Your task to perform on an android device: delete location history Image 0: 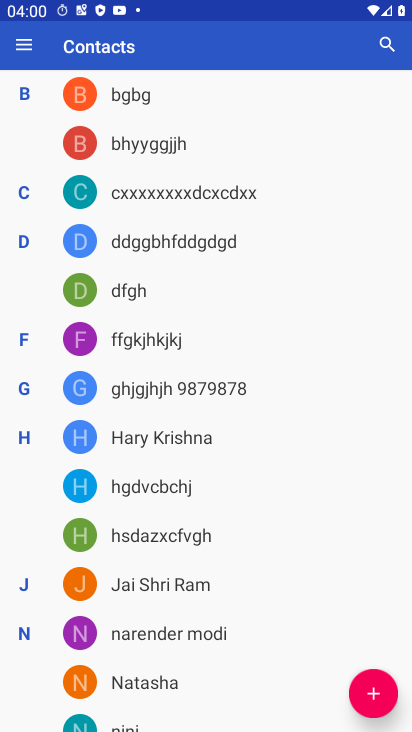
Step 0: press back button
Your task to perform on an android device: delete location history Image 1: 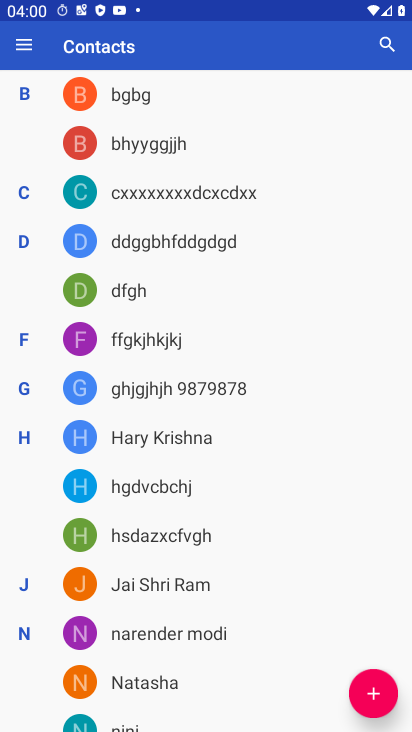
Step 1: press back button
Your task to perform on an android device: delete location history Image 2: 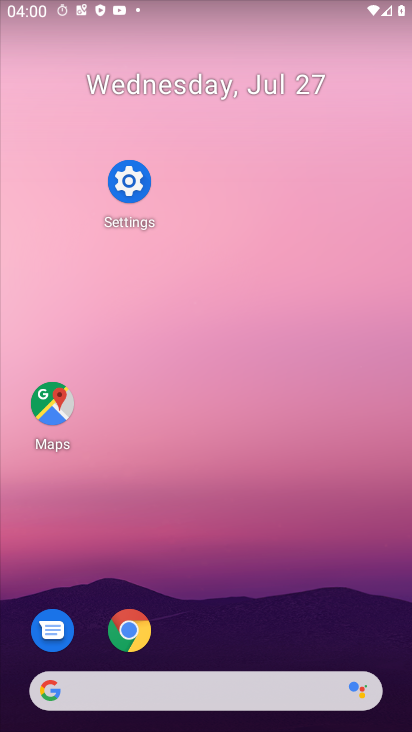
Step 2: drag from (253, 664) to (237, 316)
Your task to perform on an android device: delete location history Image 3: 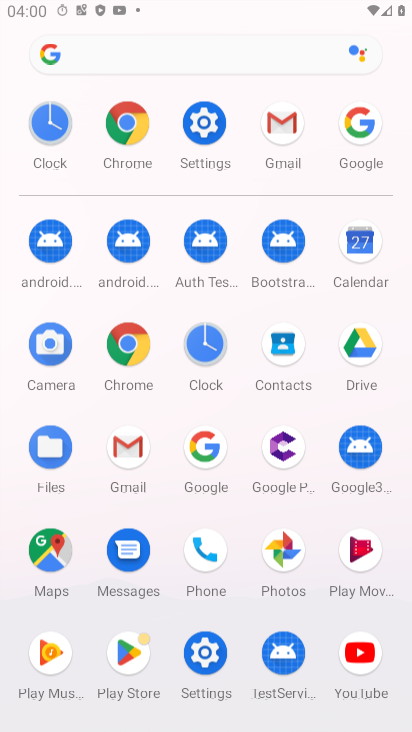
Step 3: drag from (217, 532) to (217, 395)
Your task to perform on an android device: delete location history Image 4: 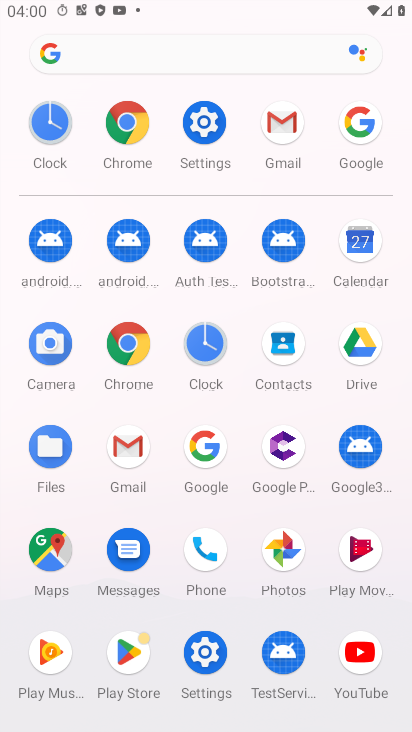
Step 4: click (191, 664)
Your task to perform on an android device: delete location history Image 5: 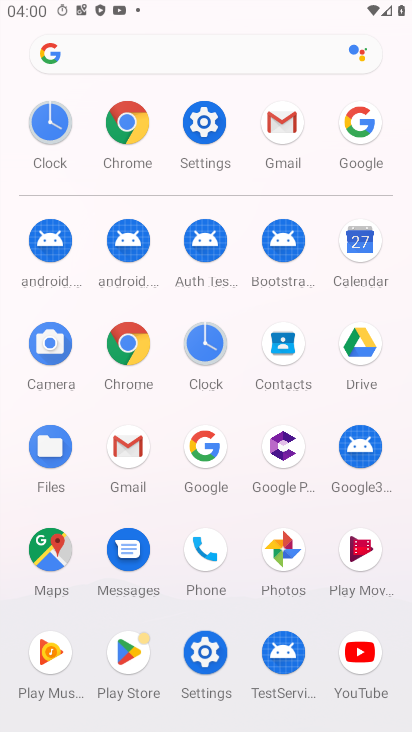
Step 5: click (191, 664)
Your task to perform on an android device: delete location history Image 6: 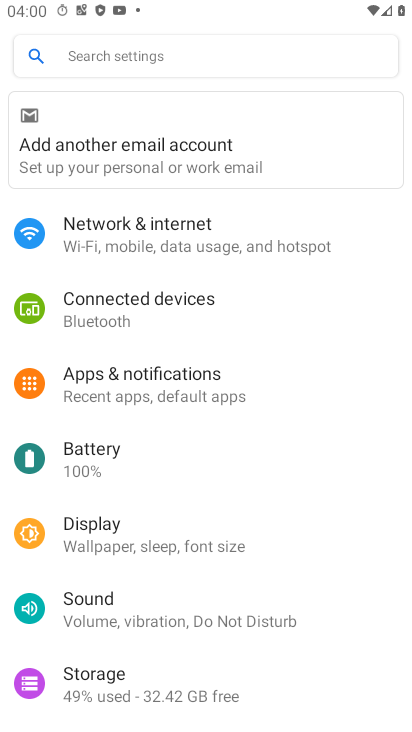
Step 6: drag from (129, 589) to (107, 236)
Your task to perform on an android device: delete location history Image 7: 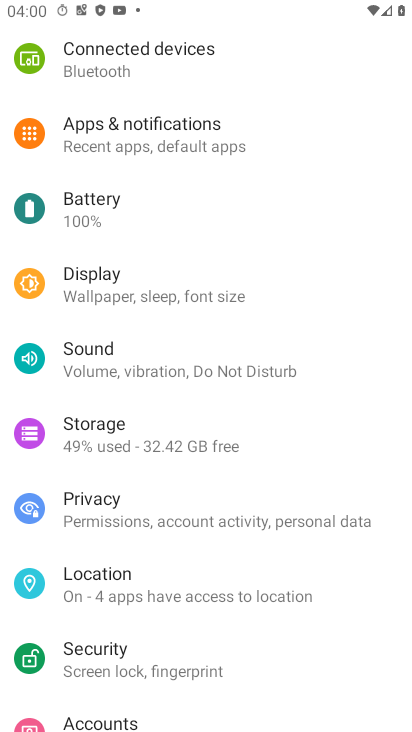
Step 7: drag from (122, 566) to (112, 357)
Your task to perform on an android device: delete location history Image 8: 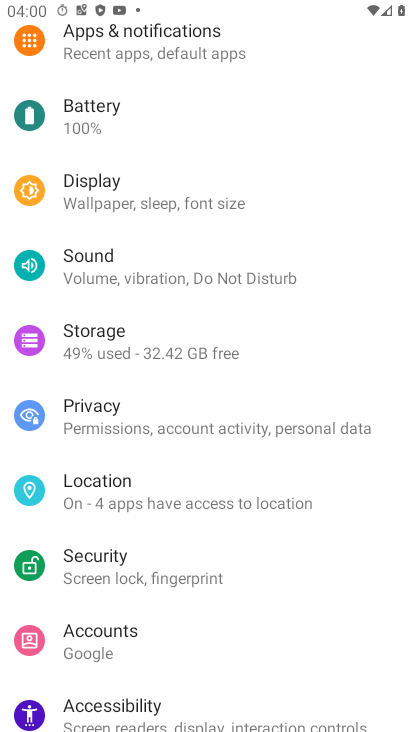
Step 8: drag from (124, 589) to (124, 491)
Your task to perform on an android device: delete location history Image 9: 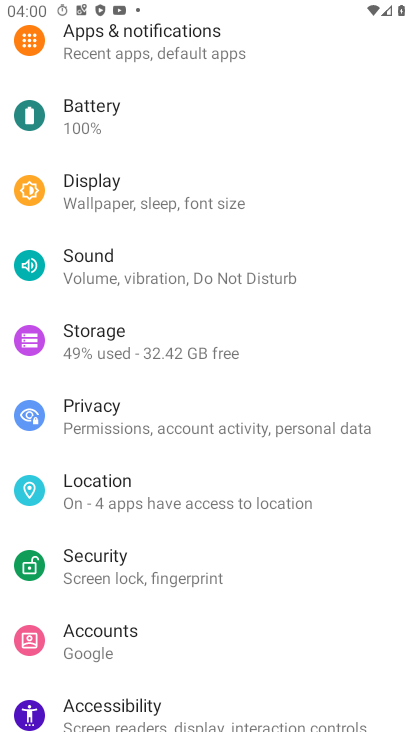
Step 9: click (115, 483)
Your task to perform on an android device: delete location history Image 10: 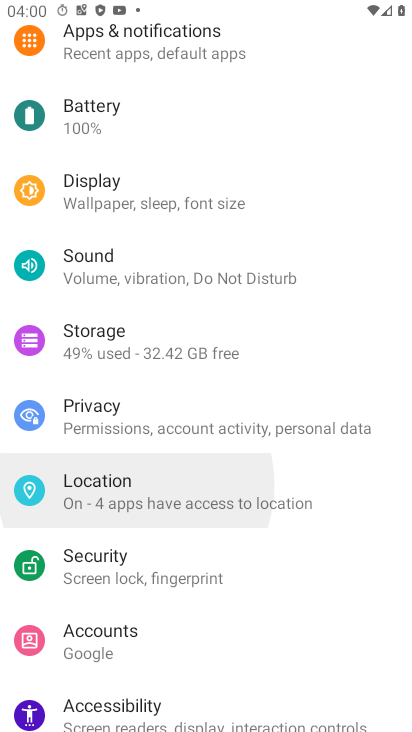
Step 10: click (116, 483)
Your task to perform on an android device: delete location history Image 11: 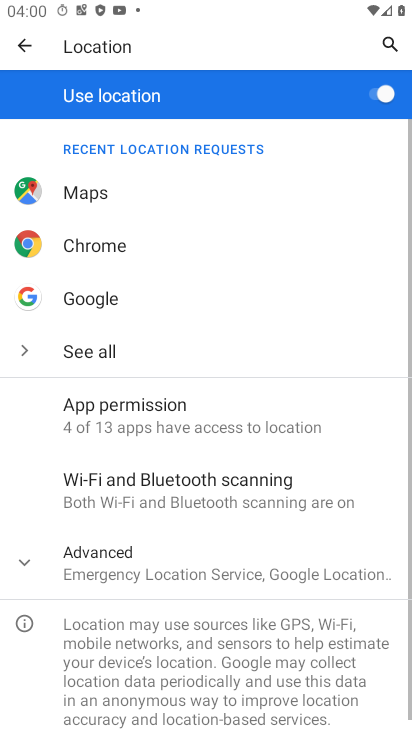
Step 11: click (154, 542)
Your task to perform on an android device: delete location history Image 12: 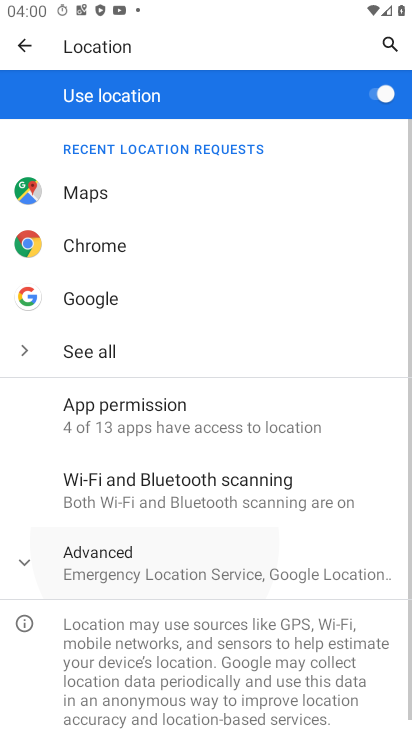
Step 12: click (154, 542)
Your task to perform on an android device: delete location history Image 13: 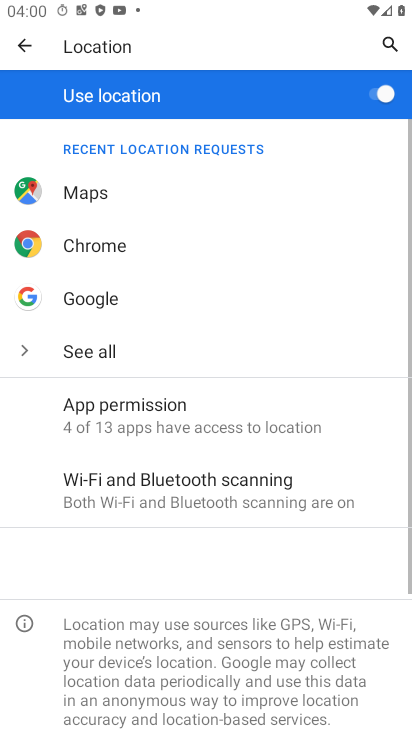
Step 13: click (154, 542)
Your task to perform on an android device: delete location history Image 14: 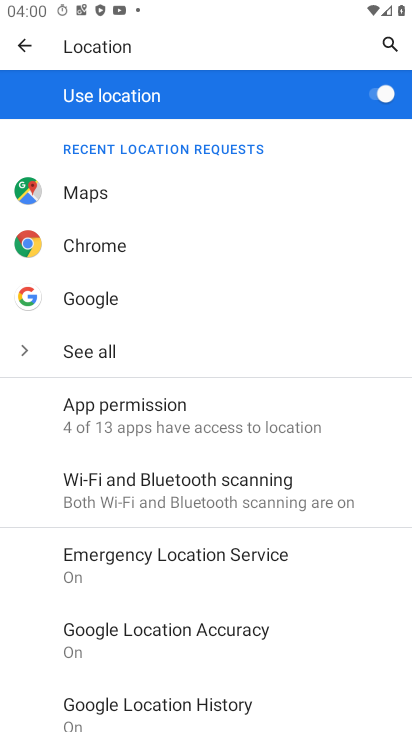
Step 14: drag from (236, 531) to (242, 415)
Your task to perform on an android device: delete location history Image 15: 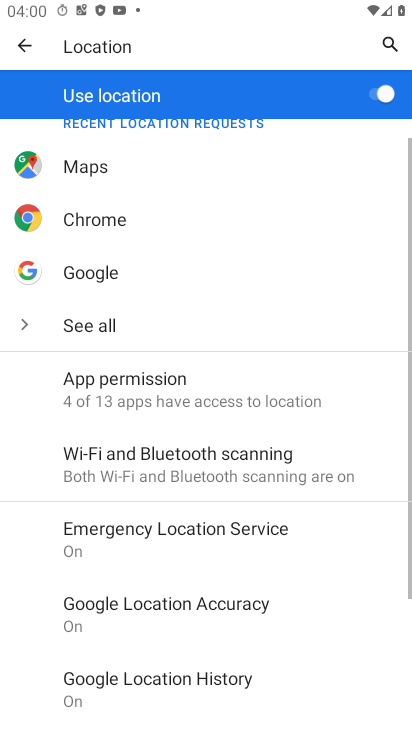
Step 15: click (222, 698)
Your task to perform on an android device: delete location history Image 16: 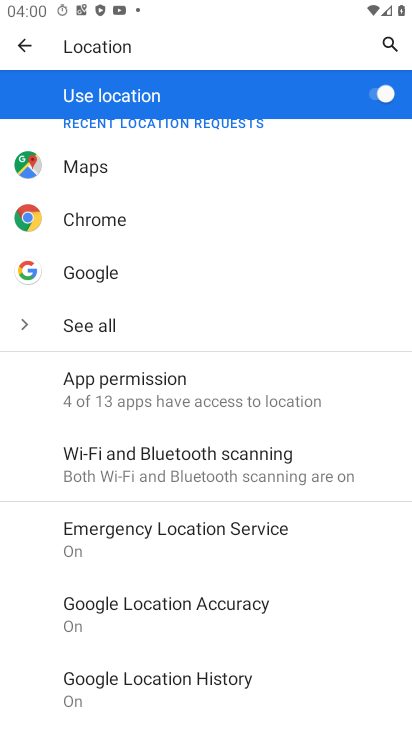
Step 16: click (219, 678)
Your task to perform on an android device: delete location history Image 17: 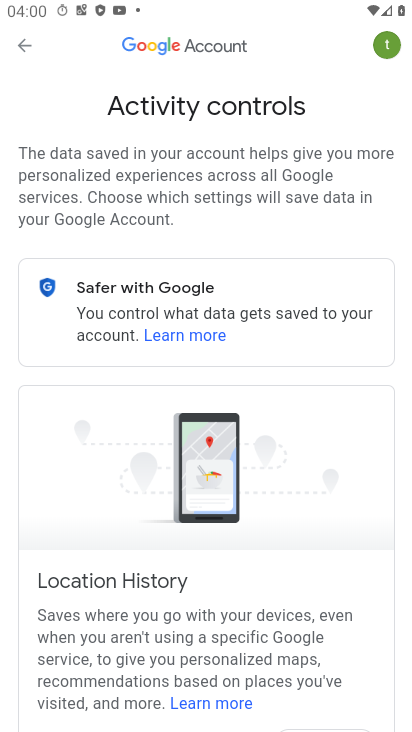
Step 17: task complete